Your task to perform on an android device: Go to location settings Image 0: 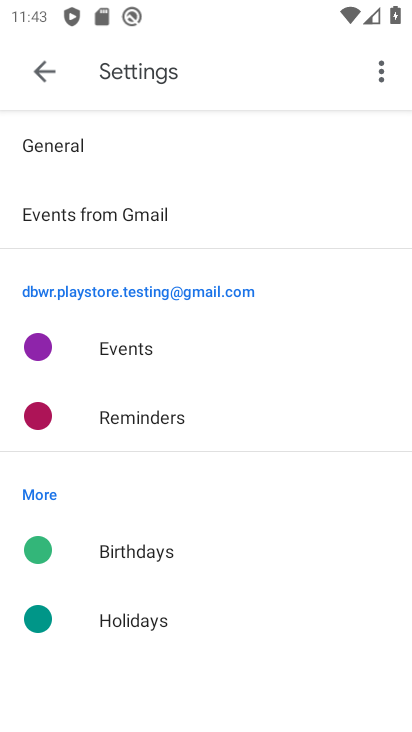
Step 0: press home button
Your task to perform on an android device: Go to location settings Image 1: 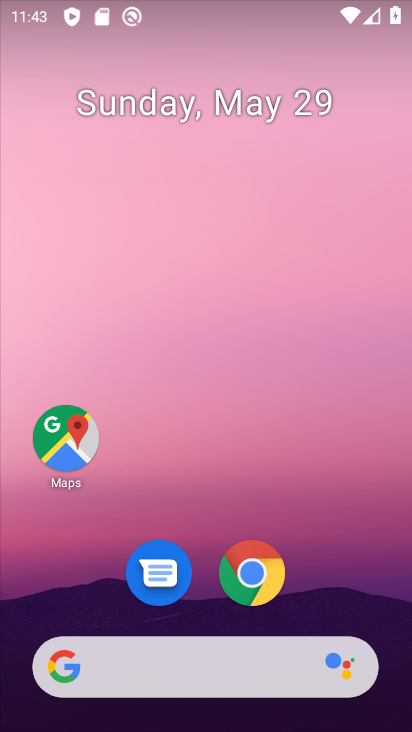
Step 1: drag from (214, 694) to (200, 396)
Your task to perform on an android device: Go to location settings Image 2: 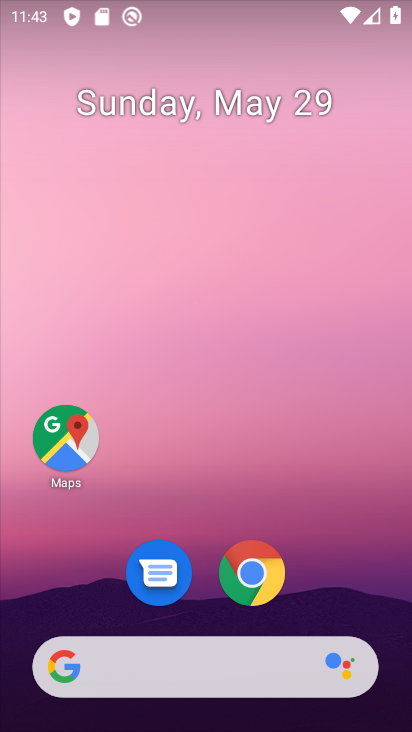
Step 2: drag from (175, 672) to (159, 132)
Your task to perform on an android device: Go to location settings Image 3: 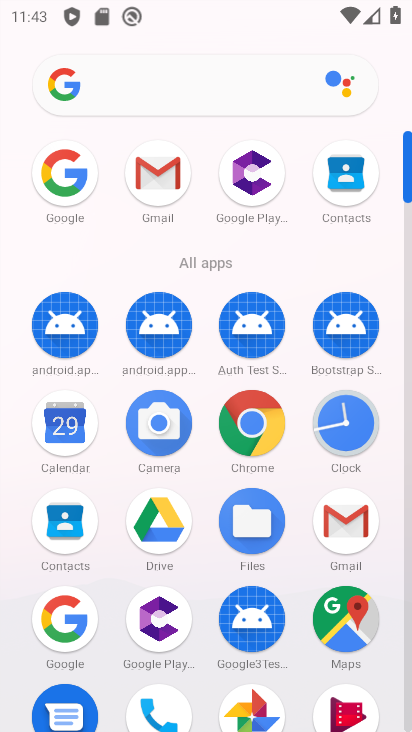
Step 3: drag from (228, 569) to (97, 34)
Your task to perform on an android device: Go to location settings Image 4: 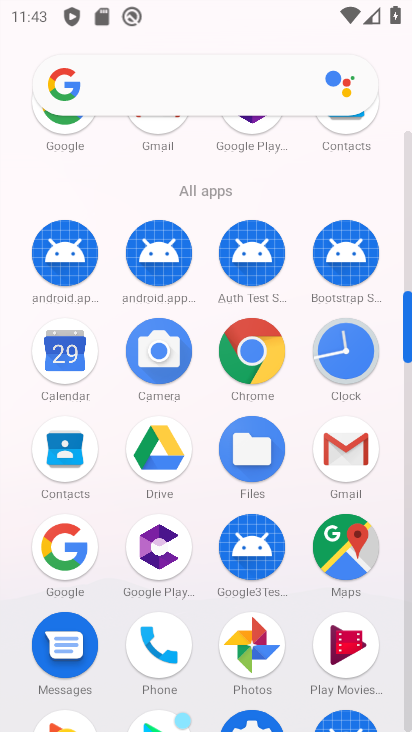
Step 4: drag from (203, 605) to (120, 28)
Your task to perform on an android device: Go to location settings Image 5: 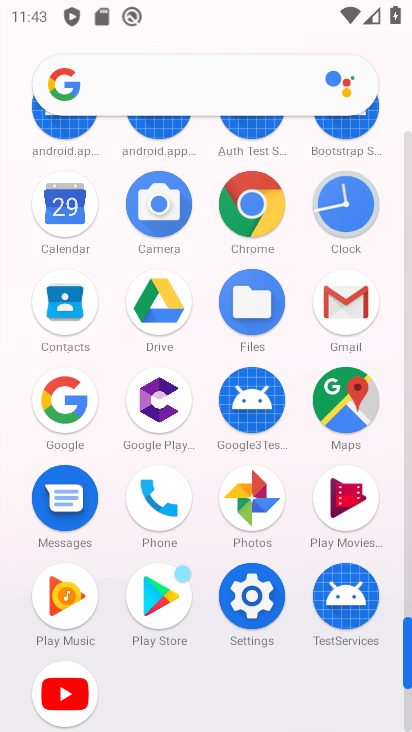
Step 5: click (259, 608)
Your task to perform on an android device: Go to location settings Image 6: 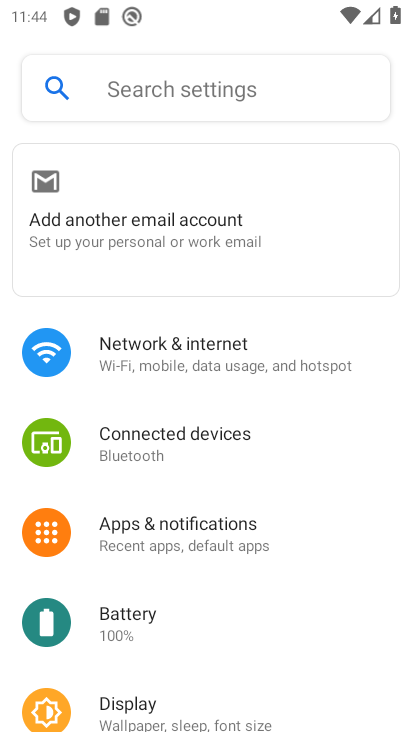
Step 6: drag from (180, 618) to (186, 38)
Your task to perform on an android device: Go to location settings Image 7: 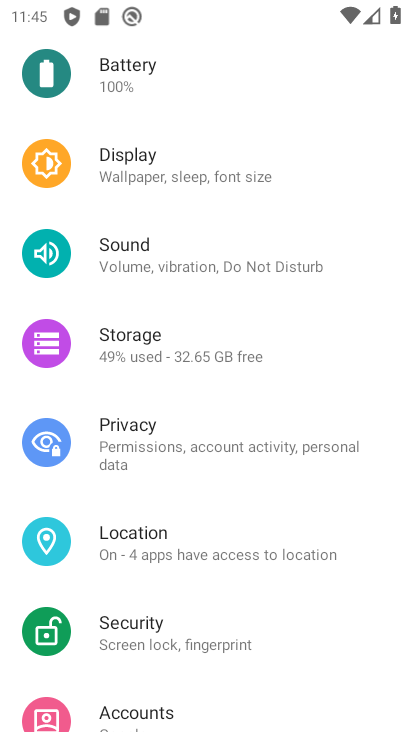
Step 7: click (151, 562)
Your task to perform on an android device: Go to location settings Image 8: 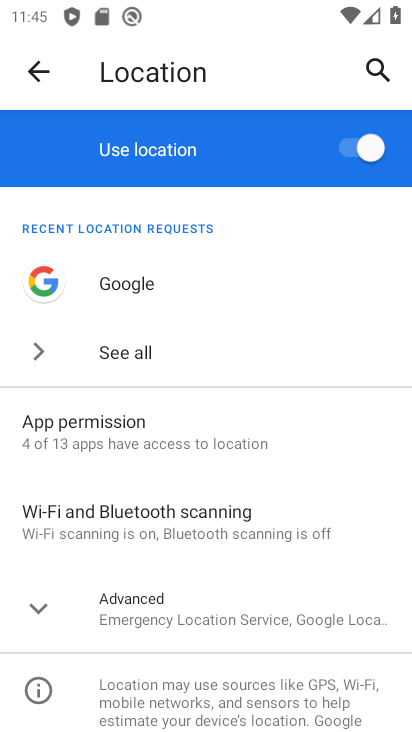
Step 8: click (133, 543)
Your task to perform on an android device: Go to location settings Image 9: 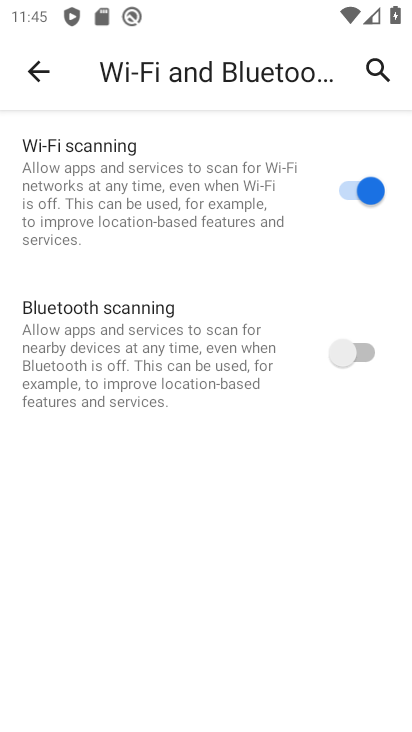
Step 9: task complete